Your task to perform on an android device: Open Chrome and go to settings Image 0: 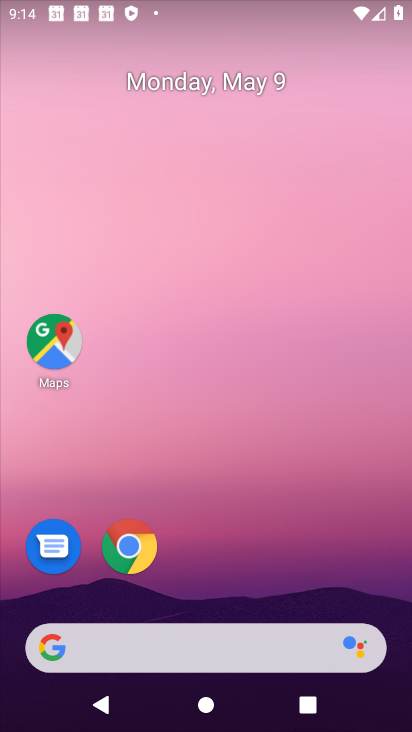
Step 0: click (140, 546)
Your task to perform on an android device: Open Chrome and go to settings Image 1: 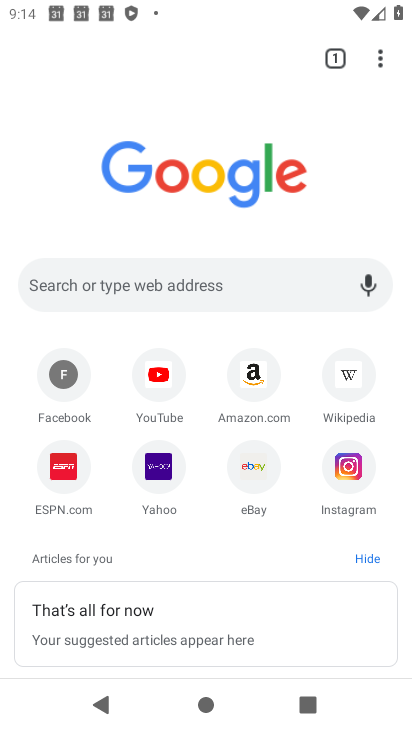
Step 1: task complete